Your task to perform on an android device: create a new album in the google photos Image 0: 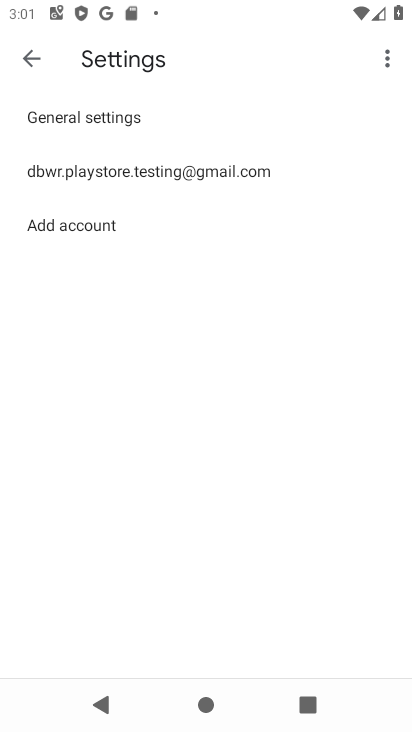
Step 0: press home button
Your task to perform on an android device: create a new album in the google photos Image 1: 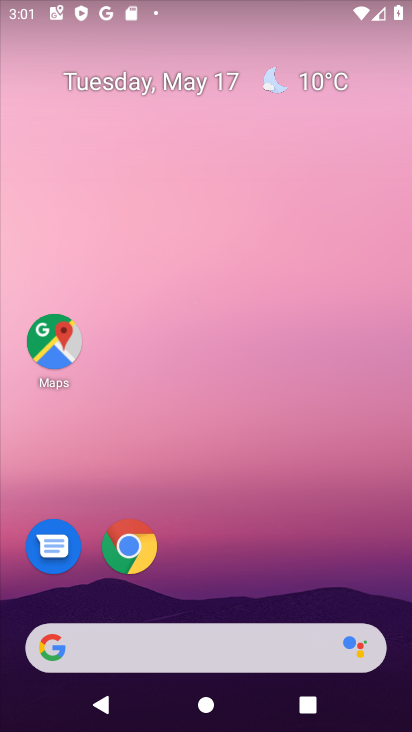
Step 1: drag from (225, 595) to (196, 25)
Your task to perform on an android device: create a new album in the google photos Image 2: 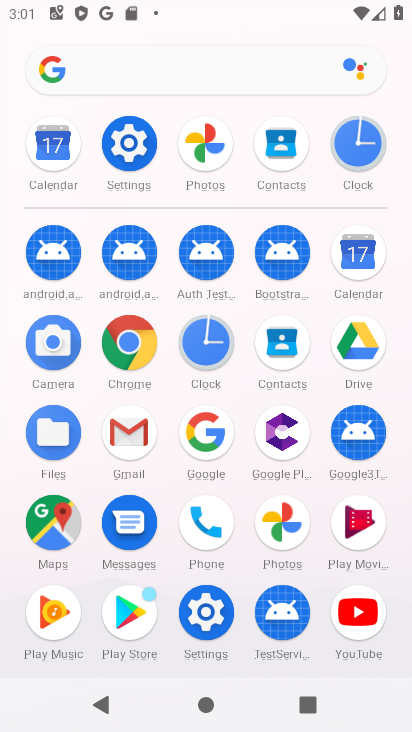
Step 2: click (284, 527)
Your task to perform on an android device: create a new album in the google photos Image 3: 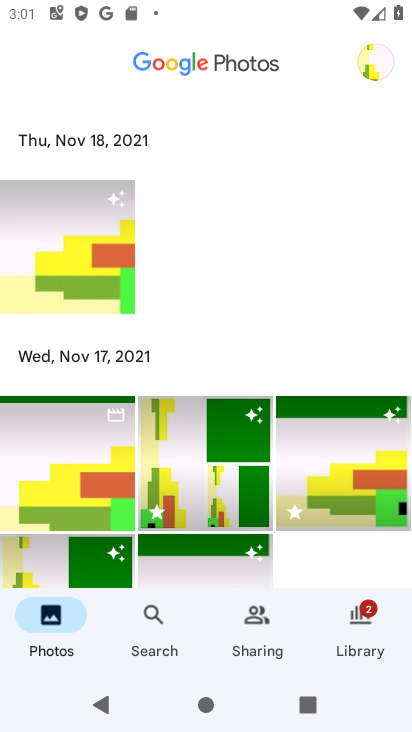
Step 3: click (374, 637)
Your task to perform on an android device: create a new album in the google photos Image 4: 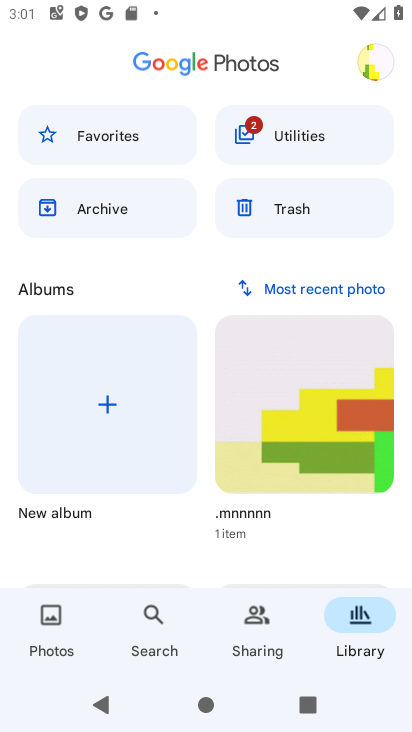
Step 4: click (104, 408)
Your task to perform on an android device: create a new album in the google photos Image 5: 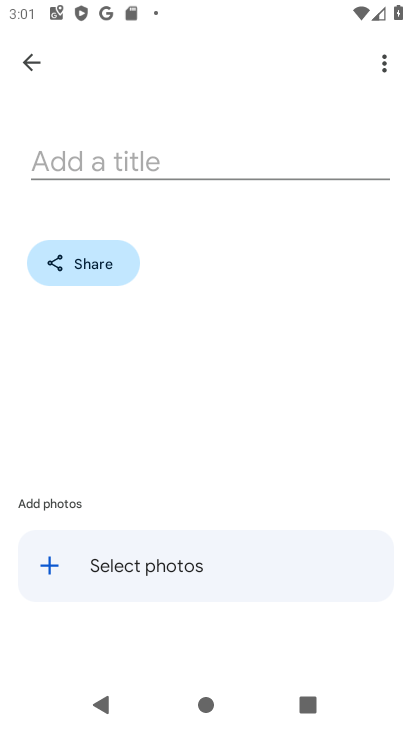
Step 5: click (128, 161)
Your task to perform on an android device: create a new album in the google photos Image 6: 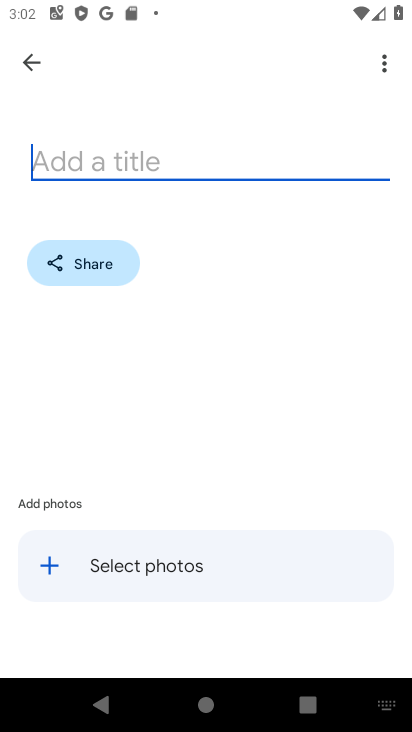
Step 6: type "framed"
Your task to perform on an android device: create a new album in the google photos Image 7: 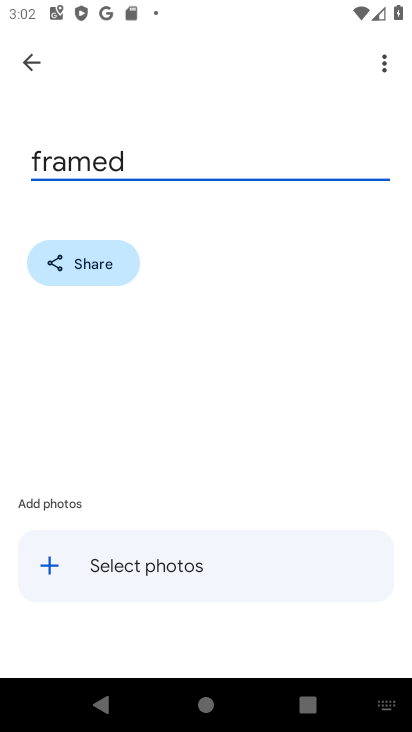
Step 7: click (49, 570)
Your task to perform on an android device: create a new album in the google photos Image 8: 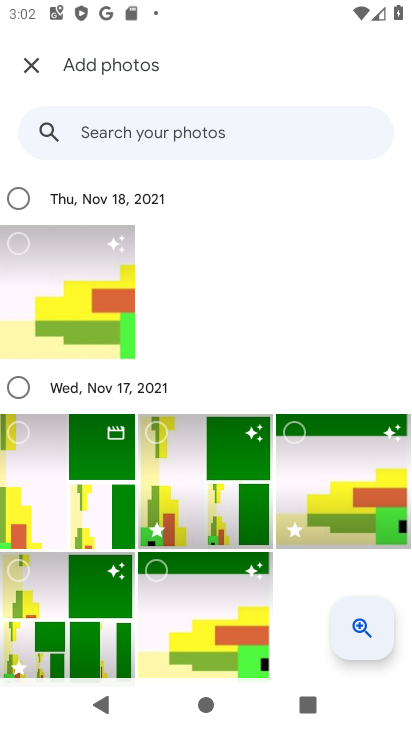
Step 8: click (58, 453)
Your task to perform on an android device: create a new album in the google photos Image 9: 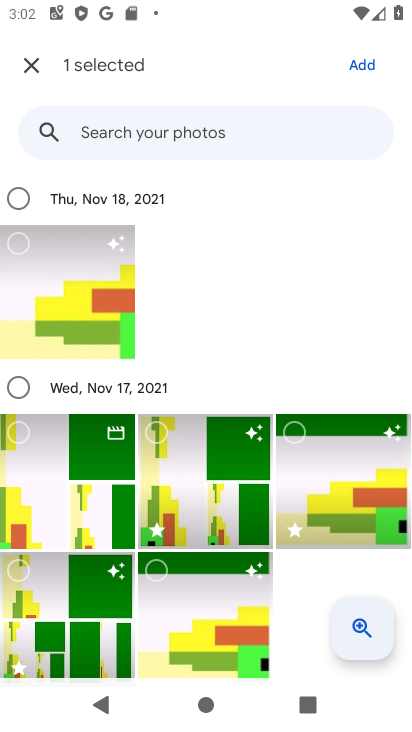
Step 9: click (309, 460)
Your task to perform on an android device: create a new album in the google photos Image 10: 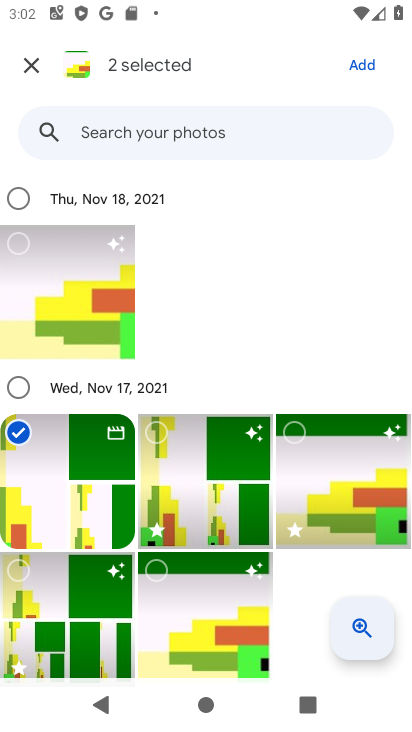
Step 10: click (163, 592)
Your task to perform on an android device: create a new album in the google photos Image 11: 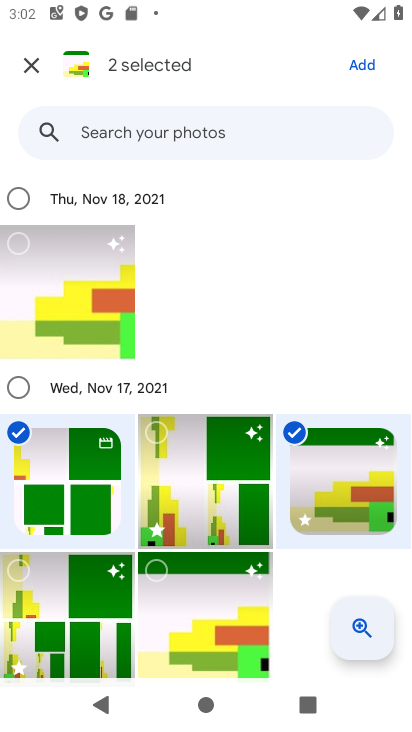
Step 11: click (21, 250)
Your task to perform on an android device: create a new album in the google photos Image 12: 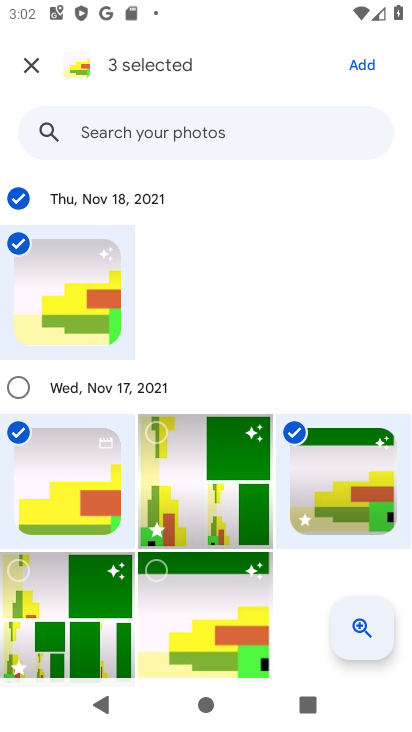
Step 12: click (154, 597)
Your task to perform on an android device: create a new album in the google photos Image 13: 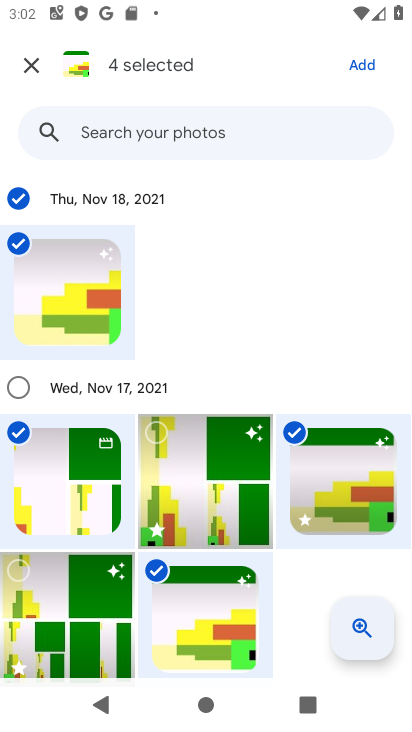
Step 13: click (354, 60)
Your task to perform on an android device: create a new album in the google photos Image 14: 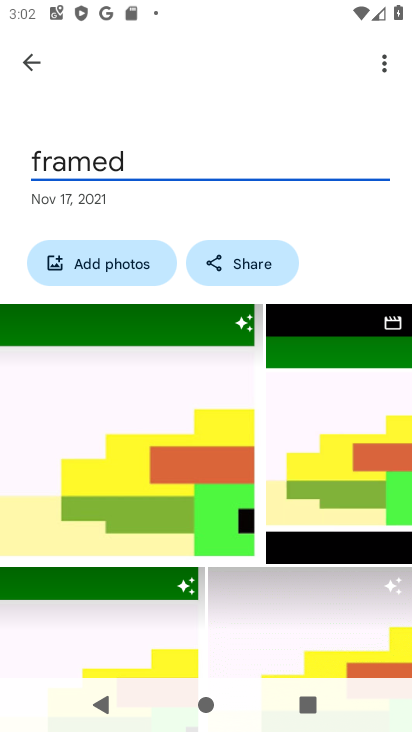
Step 14: drag from (267, 312) to (316, 22)
Your task to perform on an android device: create a new album in the google photos Image 15: 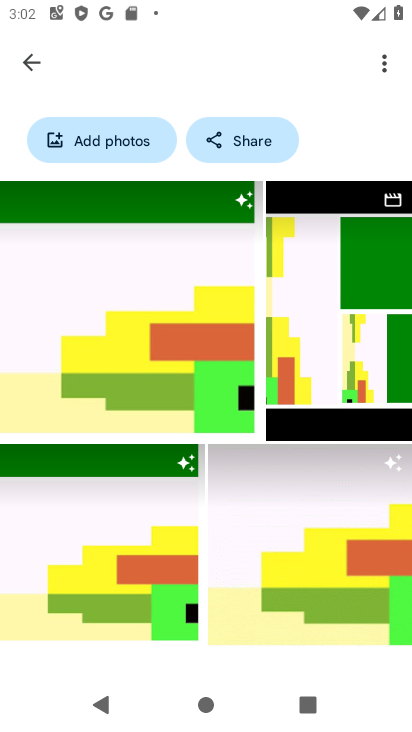
Step 15: drag from (323, 53) to (284, 494)
Your task to perform on an android device: create a new album in the google photos Image 16: 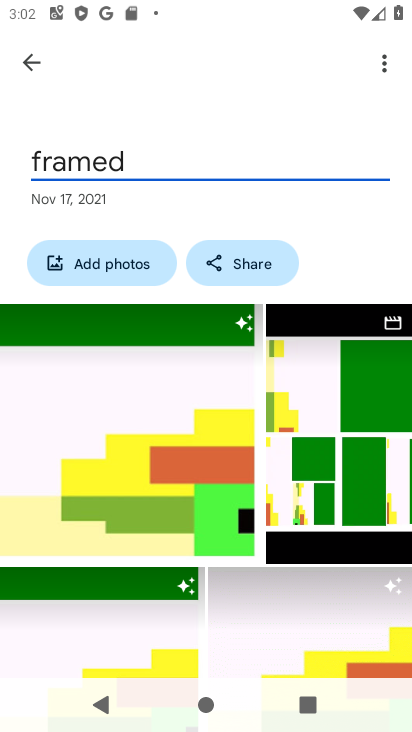
Step 16: click (387, 54)
Your task to perform on an android device: create a new album in the google photos Image 17: 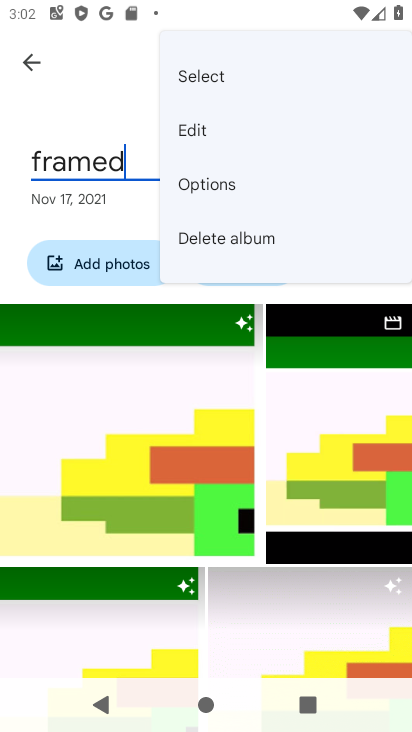
Step 17: click (199, 186)
Your task to perform on an android device: create a new album in the google photos Image 18: 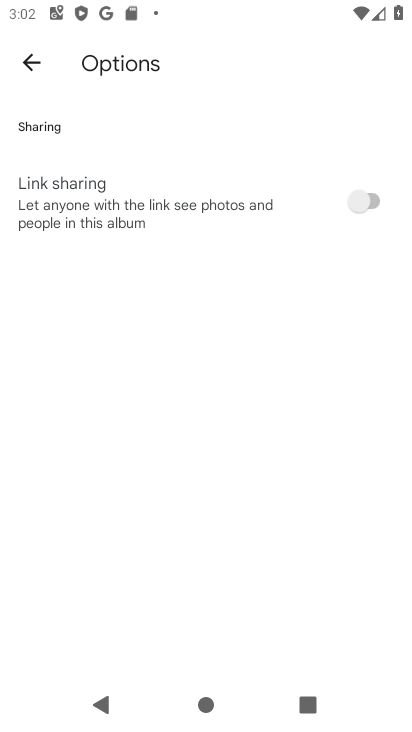
Step 18: click (28, 56)
Your task to perform on an android device: create a new album in the google photos Image 19: 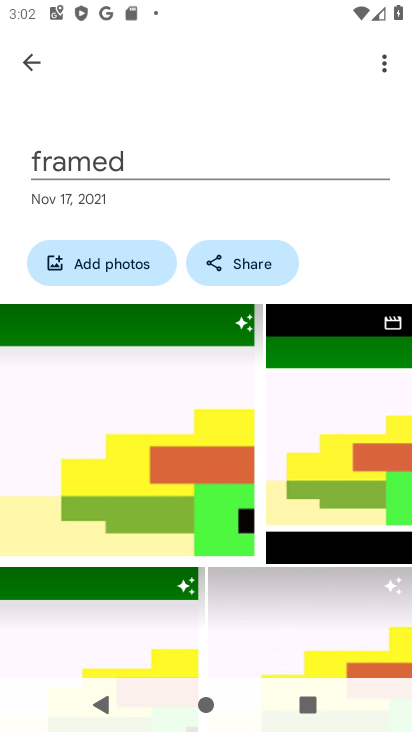
Step 19: click (390, 67)
Your task to perform on an android device: create a new album in the google photos Image 20: 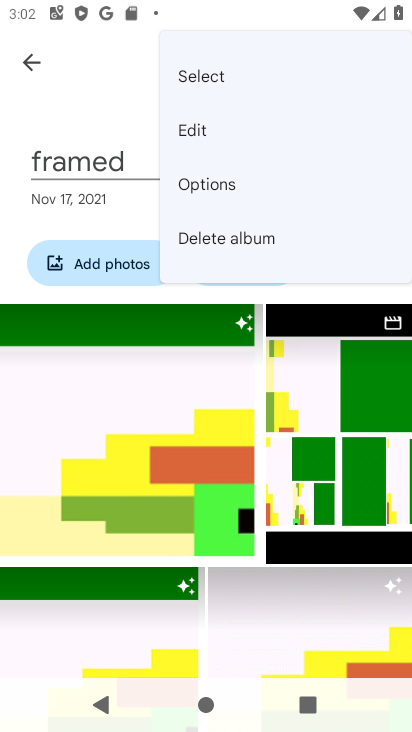
Step 20: click (192, 123)
Your task to perform on an android device: create a new album in the google photos Image 21: 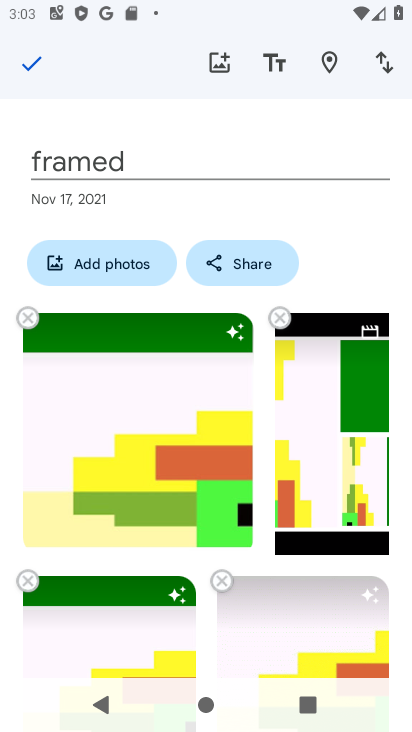
Step 21: click (30, 58)
Your task to perform on an android device: create a new album in the google photos Image 22: 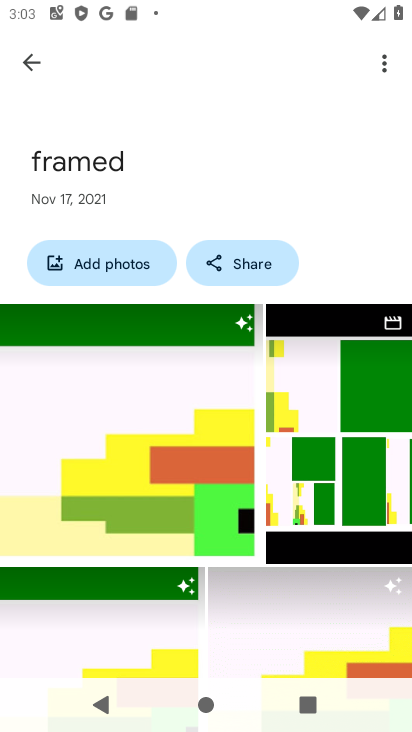
Step 22: task complete